Your task to perform on an android device: turn off location history Image 0: 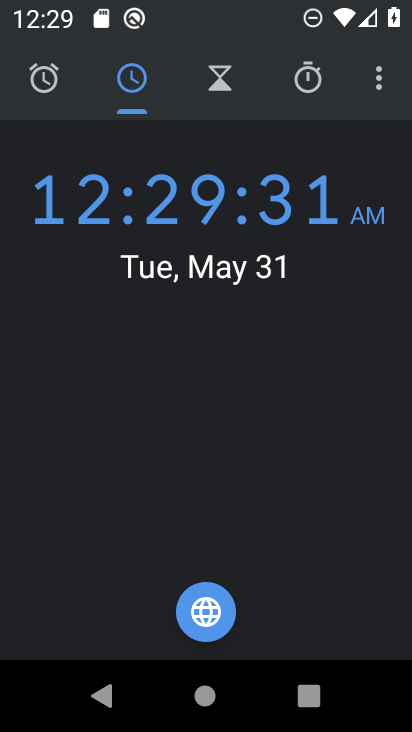
Step 0: press home button
Your task to perform on an android device: turn off location history Image 1: 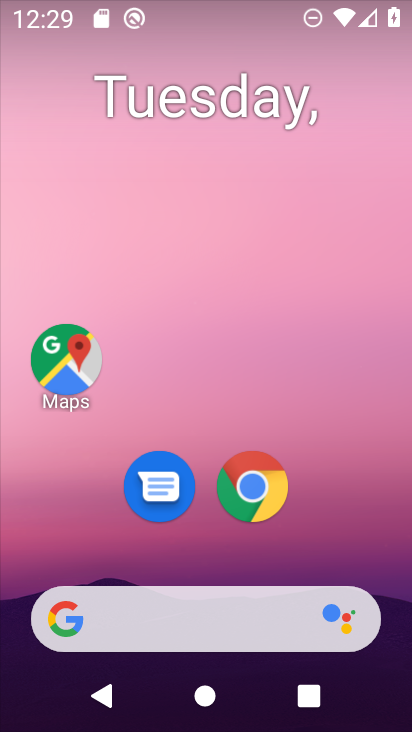
Step 1: drag from (232, 576) to (184, 94)
Your task to perform on an android device: turn off location history Image 2: 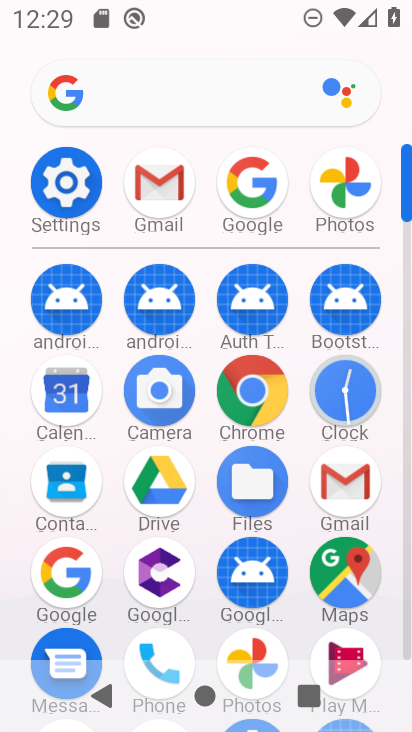
Step 2: drag from (194, 253) to (191, 79)
Your task to perform on an android device: turn off location history Image 3: 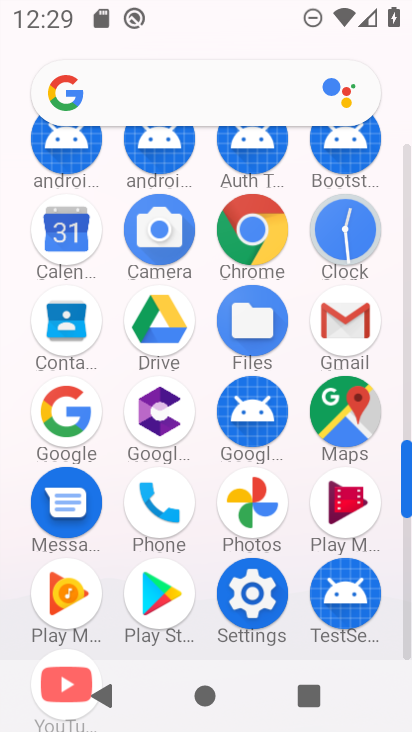
Step 3: click (265, 589)
Your task to perform on an android device: turn off location history Image 4: 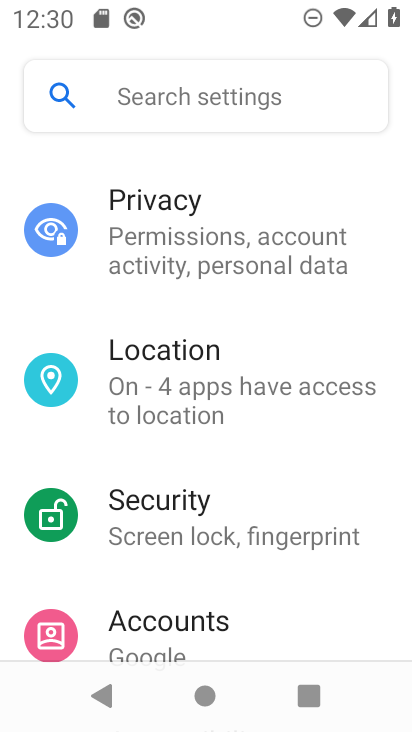
Step 4: drag from (168, 576) to (236, 503)
Your task to perform on an android device: turn off location history Image 5: 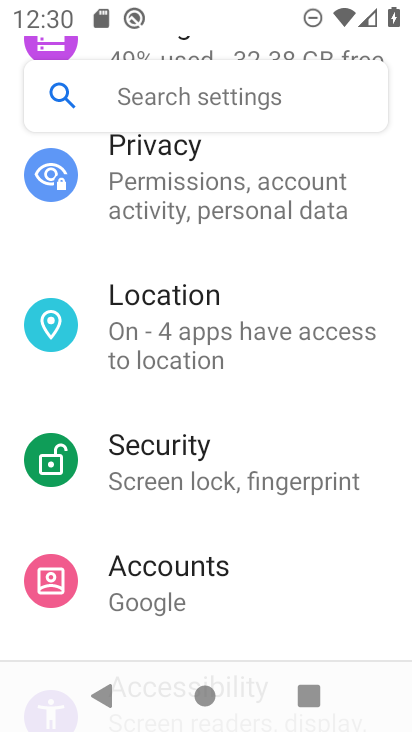
Step 5: click (216, 358)
Your task to perform on an android device: turn off location history Image 6: 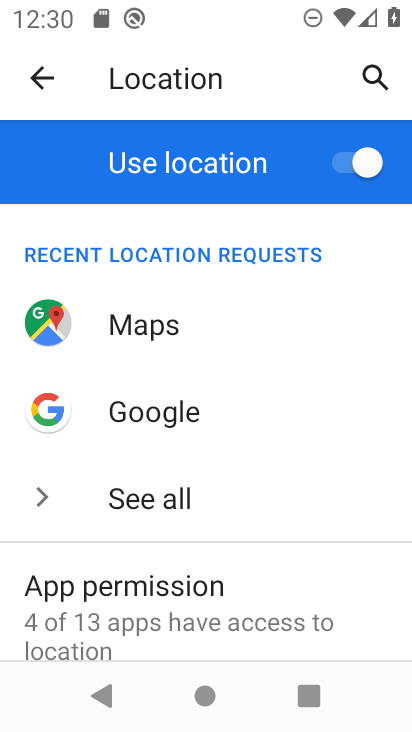
Step 6: drag from (202, 567) to (264, 121)
Your task to perform on an android device: turn off location history Image 7: 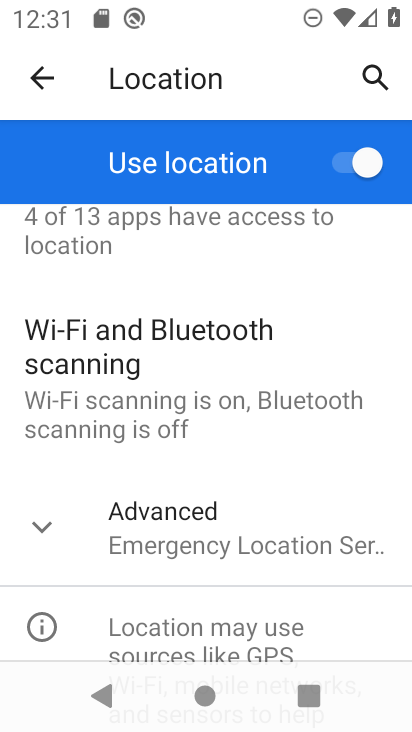
Step 7: click (178, 557)
Your task to perform on an android device: turn off location history Image 8: 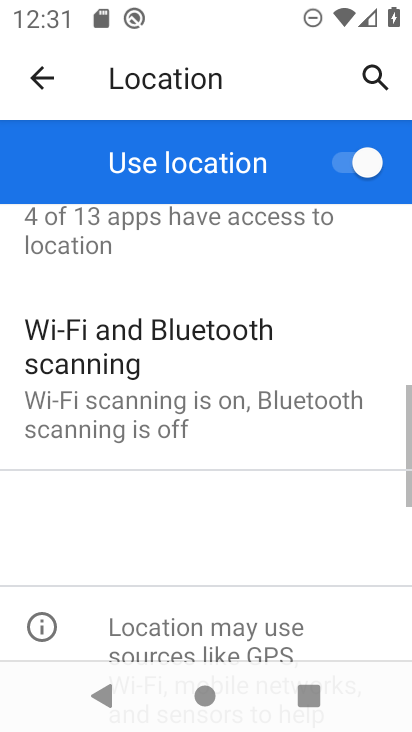
Step 8: drag from (188, 512) to (211, 132)
Your task to perform on an android device: turn off location history Image 9: 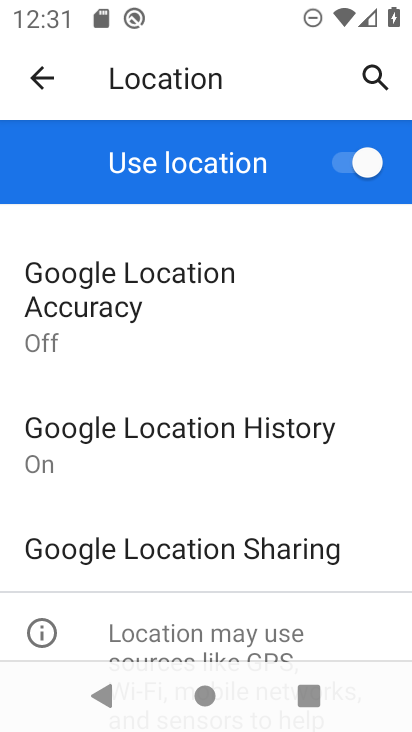
Step 9: click (179, 469)
Your task to perform on an android device: turn off location history Image 10: 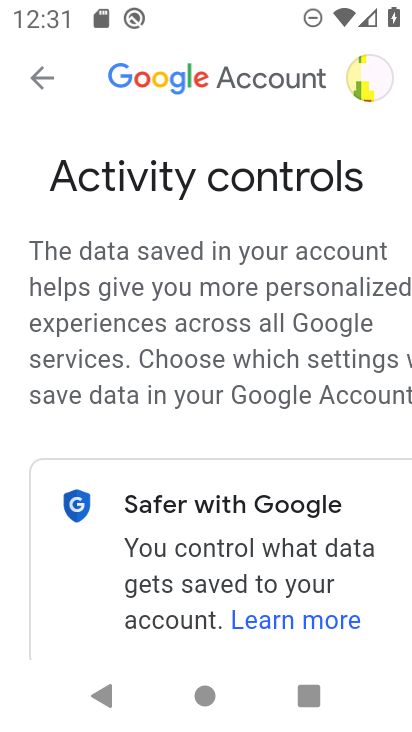
Step 10: drag from (163, 510) to (235, 103)
Your task to perform on an android device: turn off location history Image 11: 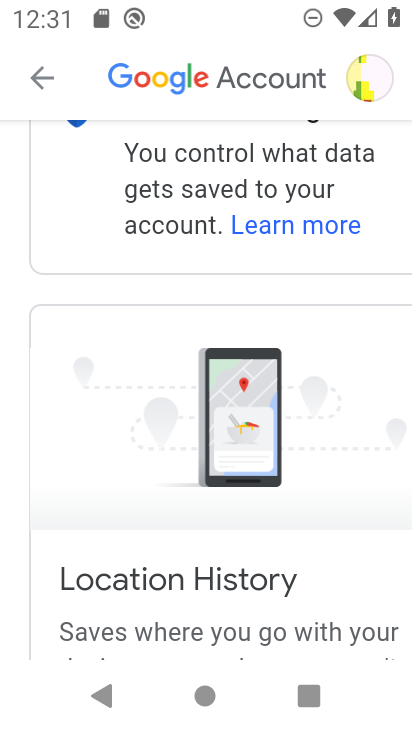
Step 11: drag from (225, 516) to (223, 21)
Your task to perform on an android device: turn off location history Image 12: 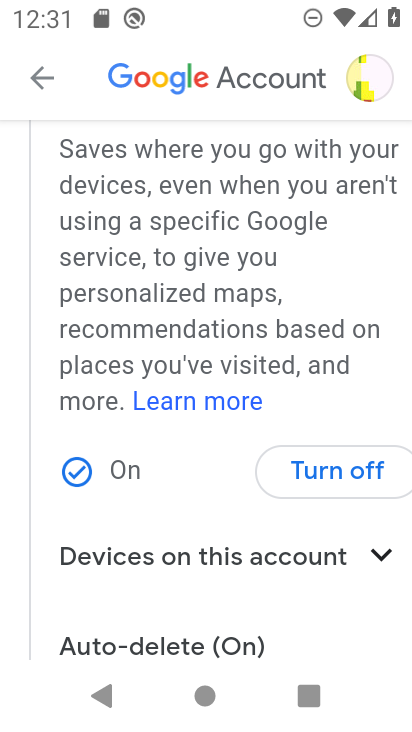
Step 12: click (278, 484)
Your task to perform on an android device: turn off location history Image 13: 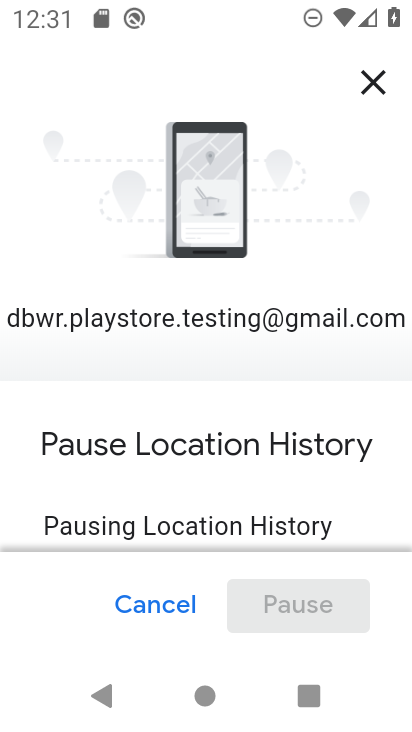
Step 13: drag from (271, 504) to (261, 105)
Your task to perform on an android device: turn off location history Image 14: 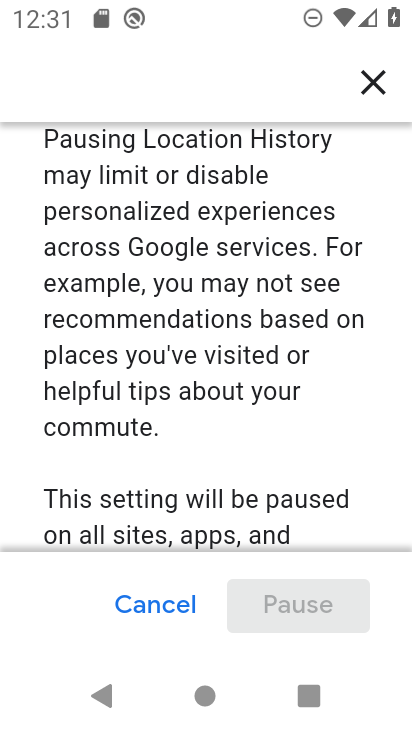
Step 14: drag from (230, 510) to (243, 113)
Your task to perform on an android device: turn off location history Image 15: 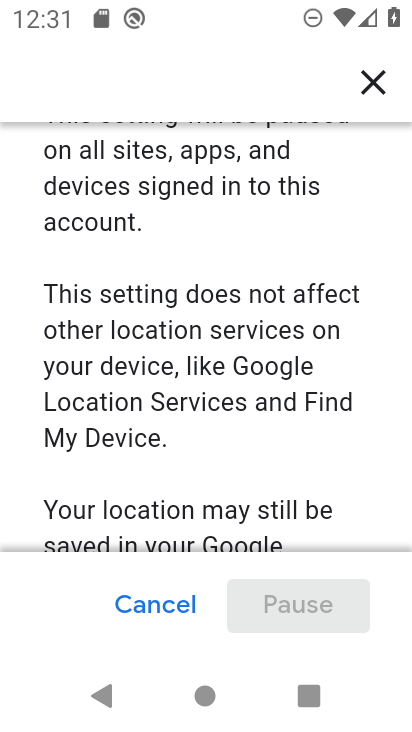
Step 15: drag from (253, 496) to (234, 86)
Your task to perform on an android device: turn off location history Image 16: 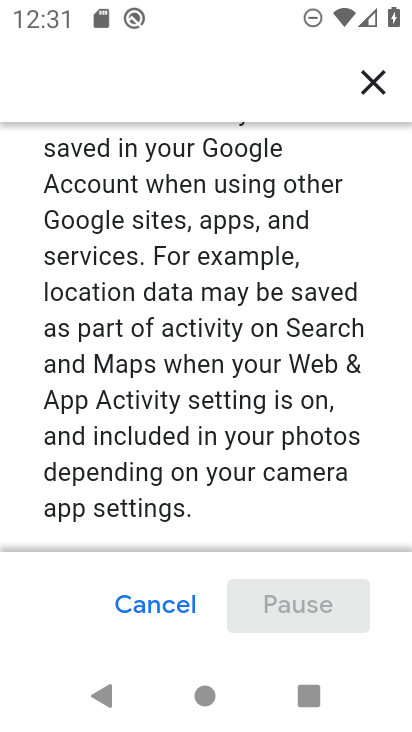
Step 16: drag from (236, 506) to (229, 74)
Your task to perform on an android device: turn off location history Image 17: 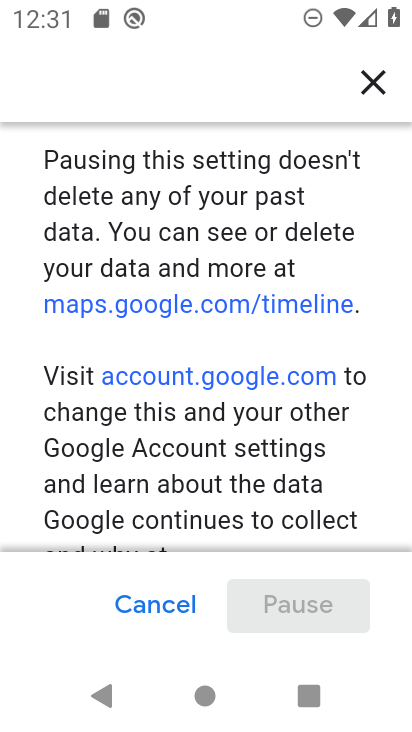
Step 17: drag from (250, 536) to (238, 95)
Your task to perform on an android device: turn off location history Image 18: 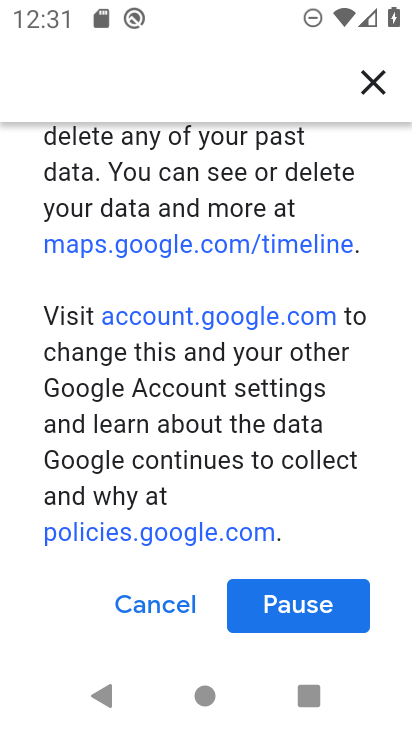
Step 18: click (279, 604)
Your task to perform on an android device: turn off location history Image 19: 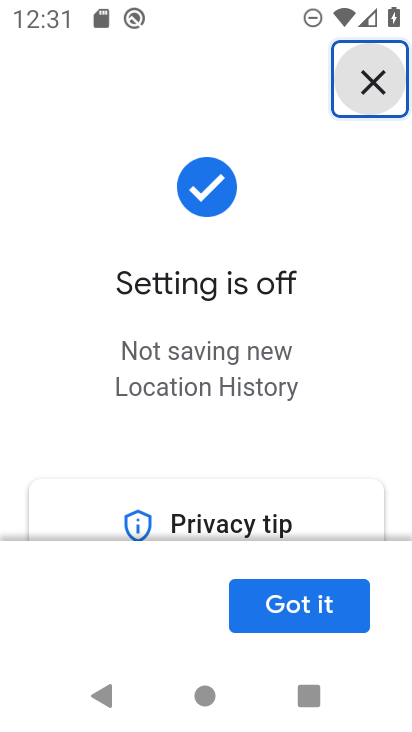
Step 19: click (280, 603)
Your task to perform on an android device: turn off location history Image 20: 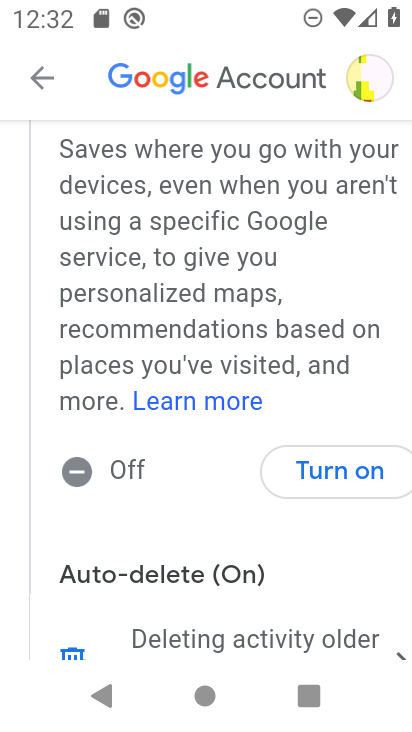
Step 20: task complete